Your task to perform on an android device: Go to Reddit.com Image 0: 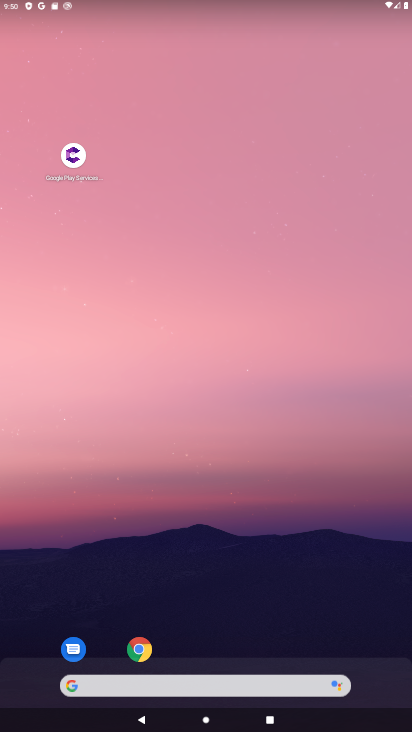
Step 0: click (135, 655)
Your task to perform on an android device: Go to Reddit.com Image 1: 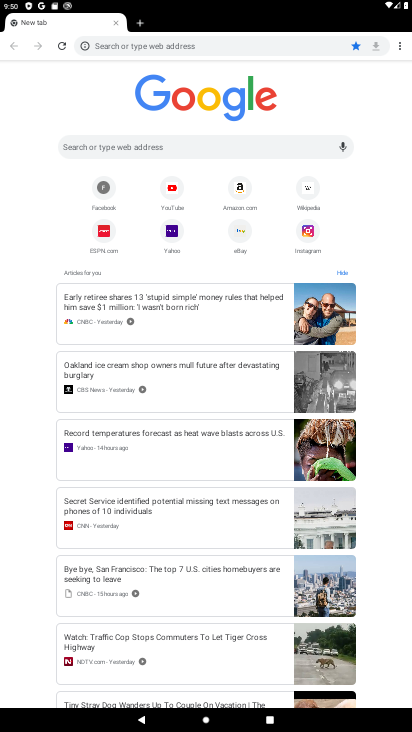
Step 1: click (175, 144)
Your task to perform on an android device: Go to Reddit.com Image 2: 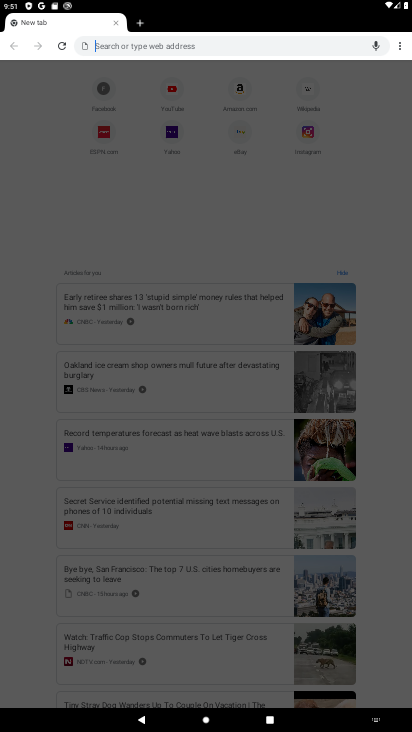
Step 2: type "Reddit.com"
Your task to perform on an android device: Go to Reddit.com Image 3: 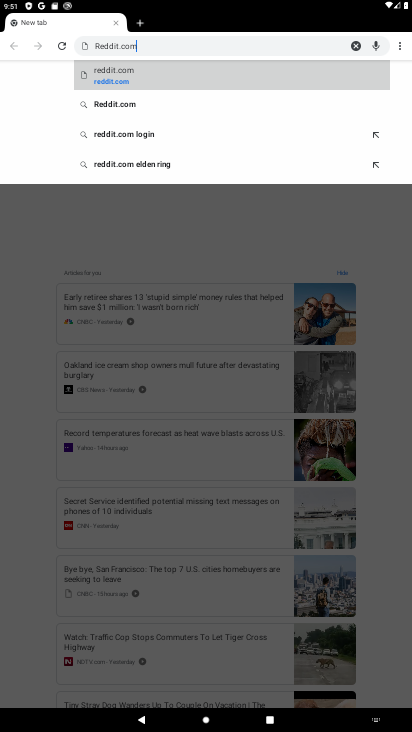
Step 3: click (142, 78)
Your task to perform on an android device: Go to Reddit.com Image 4: 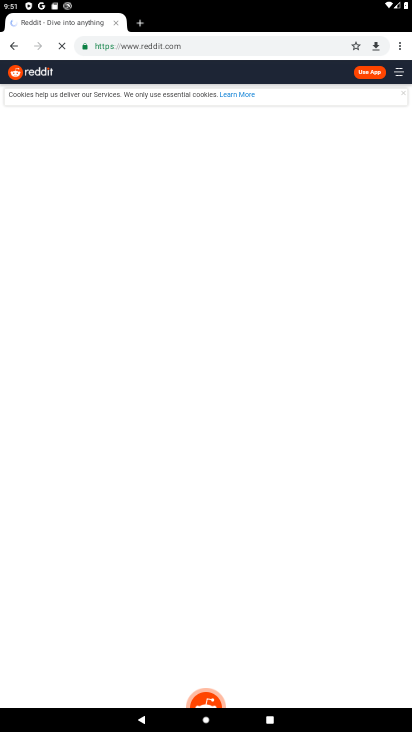
Step 4: task complete